Your task to perform on an android device: Go to Android settings Image 0: 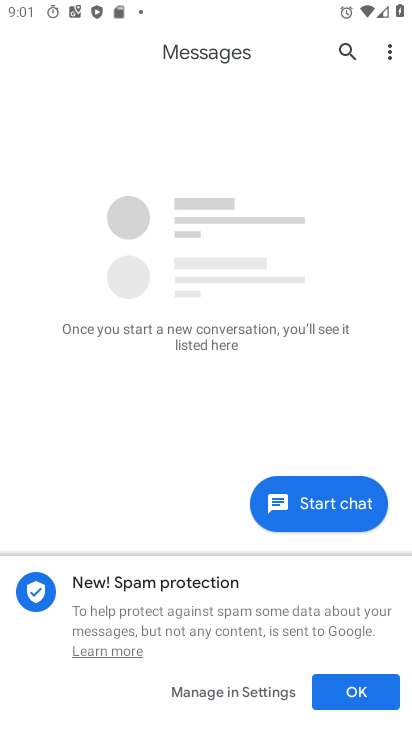
Step 0: press home button
Your task to perform on an android device: Go to Android settings Image 1: 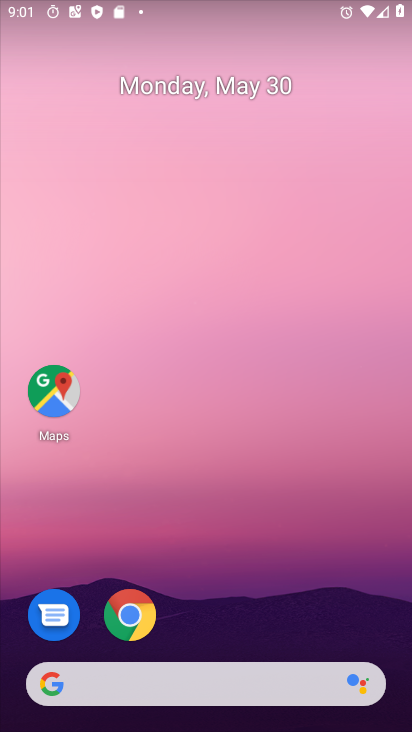
Step 1: drag from (328, 552) to (271, 71)
Your task to perform on an android device: Go to Android settings Image 2: 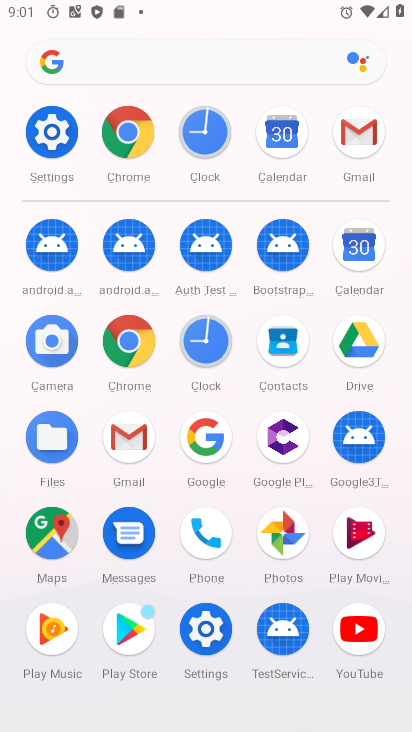
Step 2: click (216, 631)
Your task to perform on an android device: Go to Android settings Image 3: 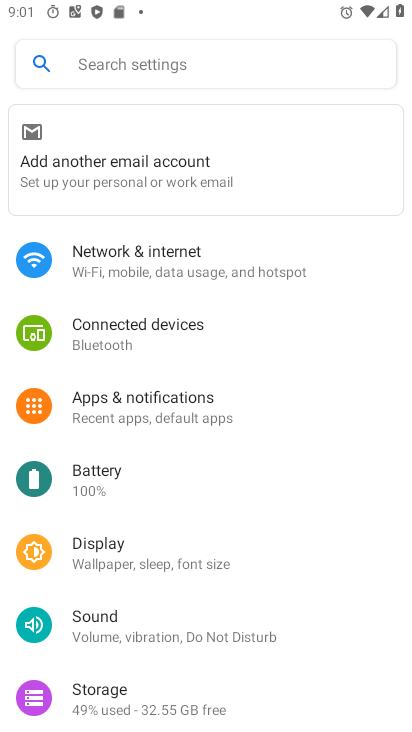
Step 3: task complete